Your task to perform on an android device: delete location history Image 0: 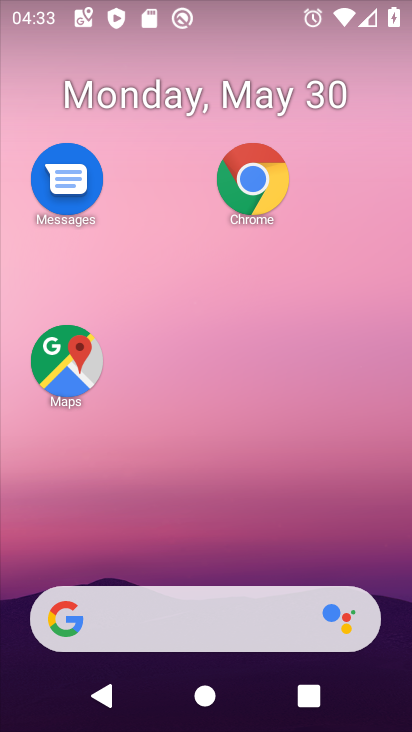
Step 0: drag from (225, 540) to (227, 130)
Your task to perform on an android device: delete location history Image 1: 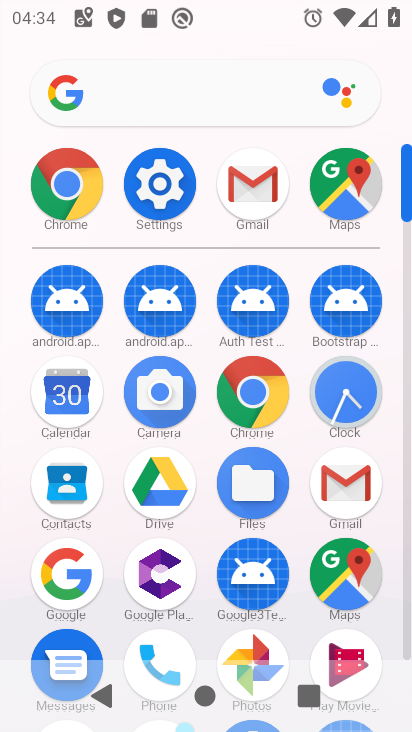
Step 1: click (152, 189)
Your task to perform on an android device: delete location history Image 2: 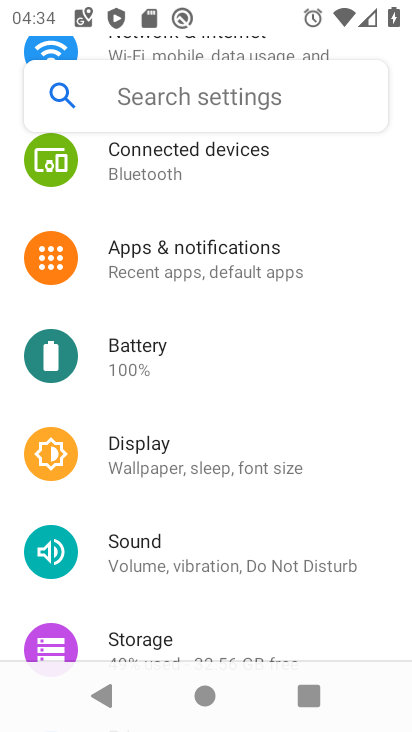
Step 2: drag from (158, 590) to (188, 337)
Your task to perform on an android device: delete location history Image 3: 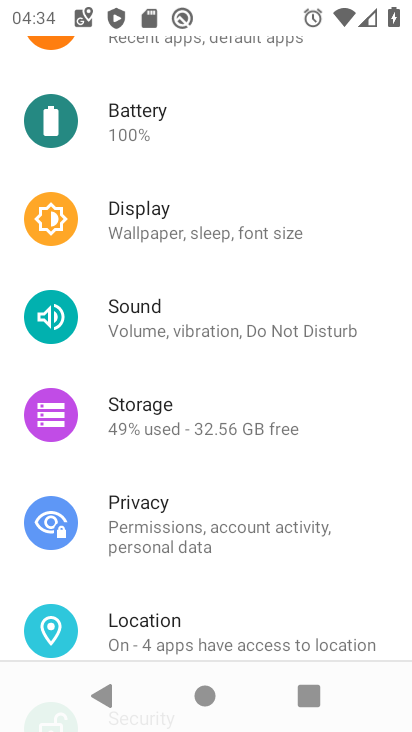
Step 3: click (141, 630)
Your task to perform on an android device: delete location history Image 4: 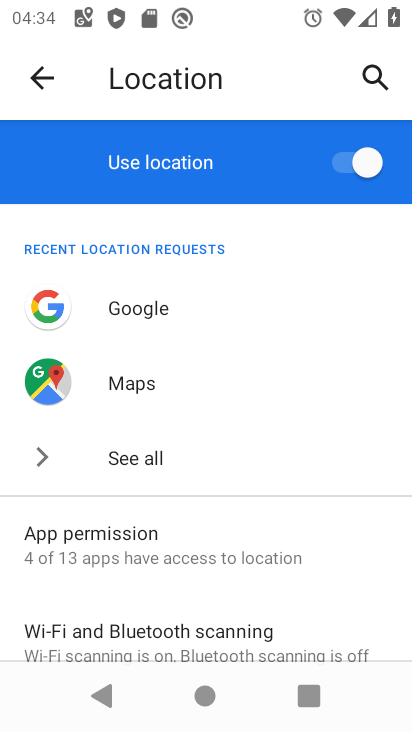
Step 4: click (115, 552)
Your task to perform on an android device: delete location history Image 5: 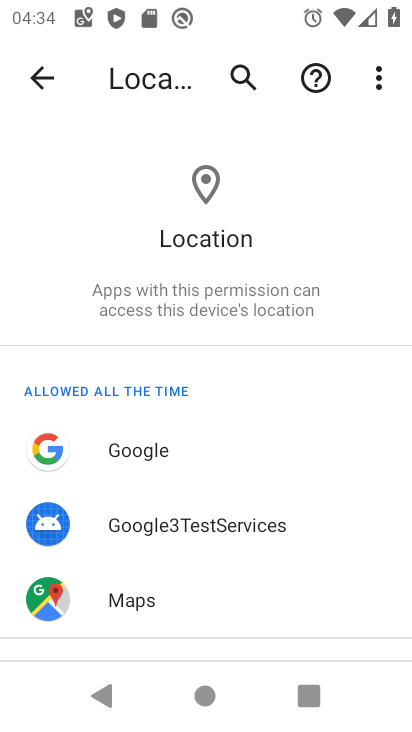
Step 5: click (47, 77)
Your task to perform on an android device: delete location history Image 6: 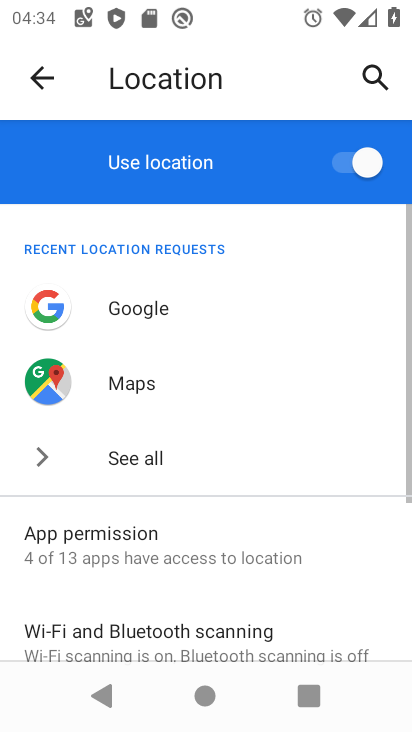
Step 6: drag from (168, 595) to (224, 157)
Your task to perform on an android device: delete location history Image 7: 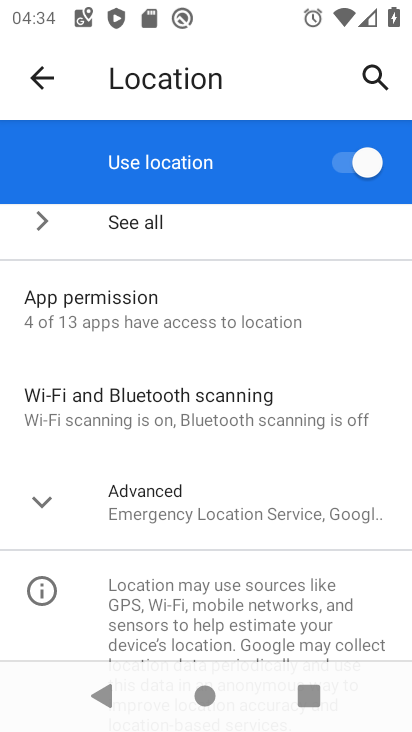
Step 7: click (144, 496)
Your task to perform on an android device: delete location history Image 8: 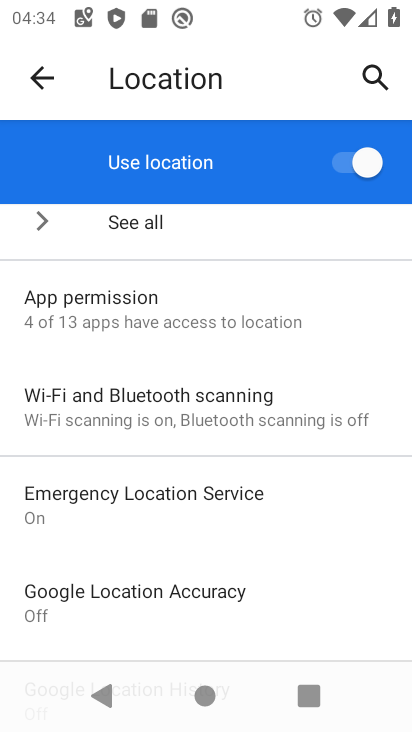
Step 8: drag from (179, 593) to (222, 331)
Your task to perform on an android device: delete location history Image 9: 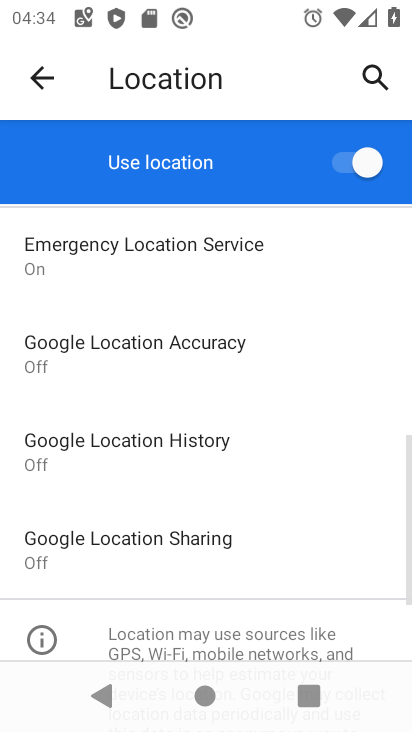
Step 9: drag from (206, 589) to (242, 322)
Your task to perform on an android device: delete location history Image 10: 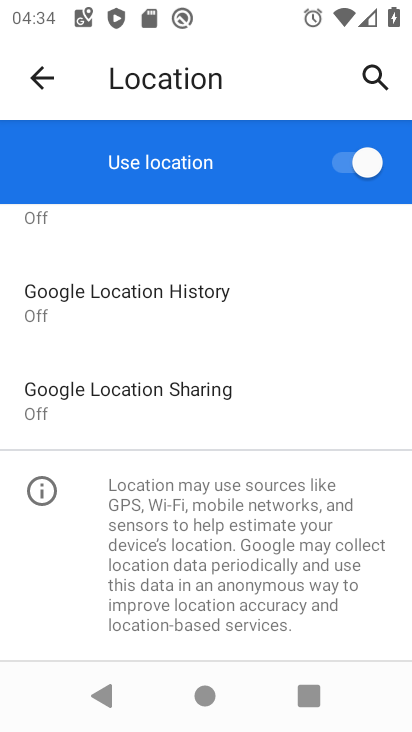
Step 10: press home button
Your task to perform on an android device: delete location history Image 11: 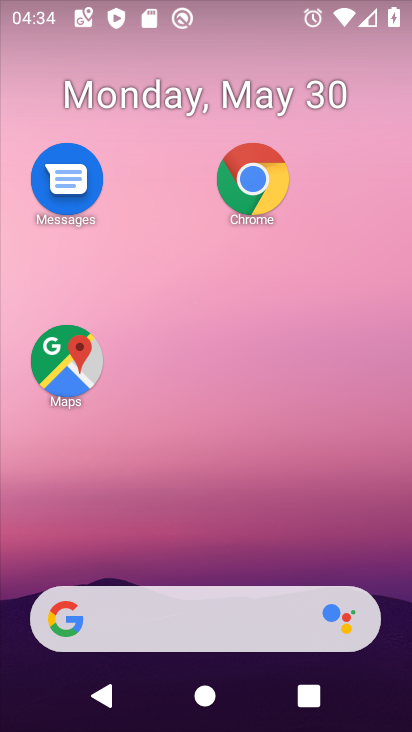
Step 11: drag from (216, 551) to (207, 238)
Your task to perform on an android device: delete location history Image 12: 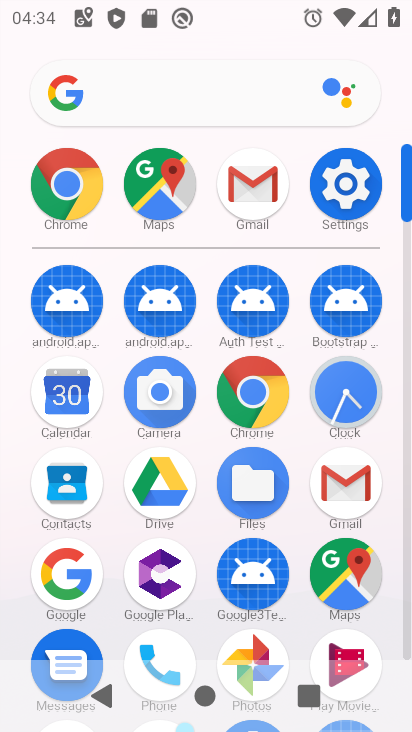
Step 12: click (353, 168)
Your task to perform on an android device: delete location history Image 13: 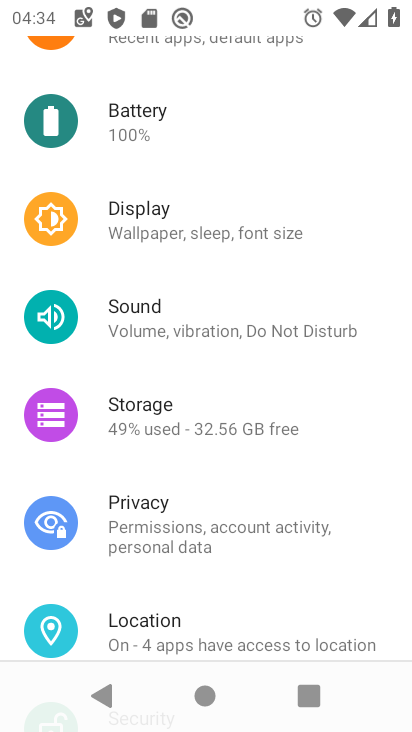
Step 13: click (128, 629)
Your task to perform on an android device: delete location history Image 14: 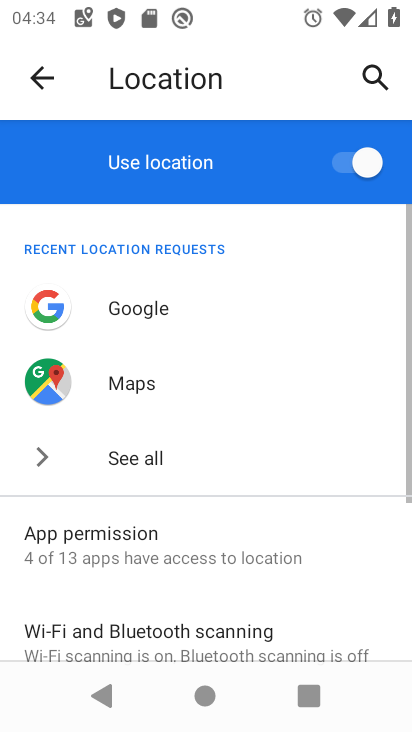
Step 14: press home button
Your task to perform on an android device: delete location history Image 15: 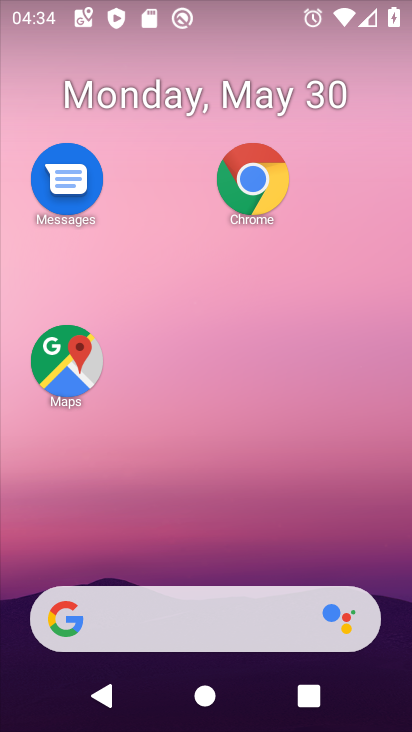
Step 15: drag from (223, 542) to (223, 173)
Your task to perform on an android device: delete location history Image 16: 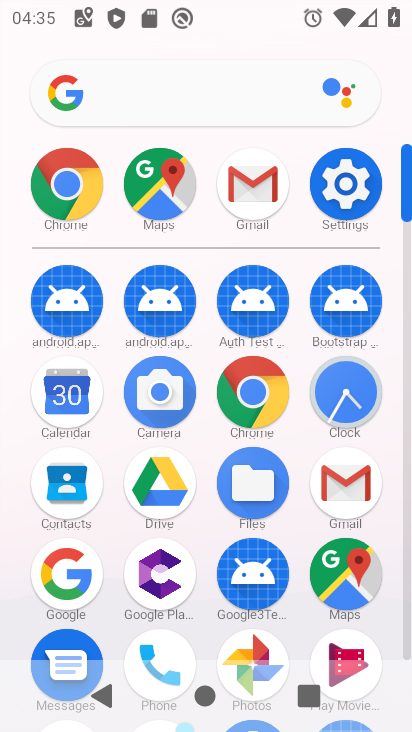
Step 16: click (341, 571)
Your task to perform on an android device: delete location history Image 17: 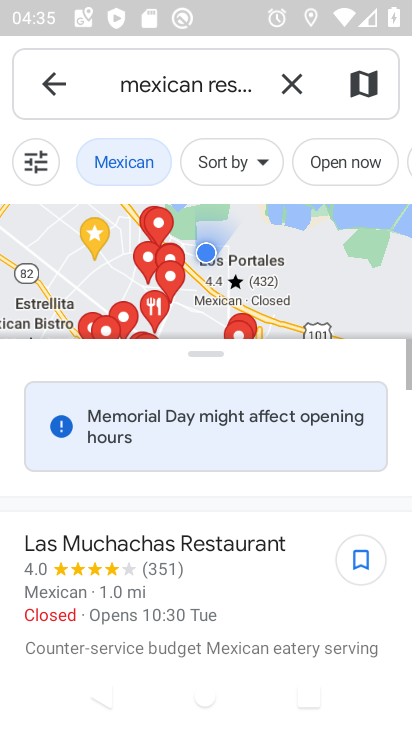
Step 17: click (31, 85)
Your task to perform on an android device: delete location history Image 18: 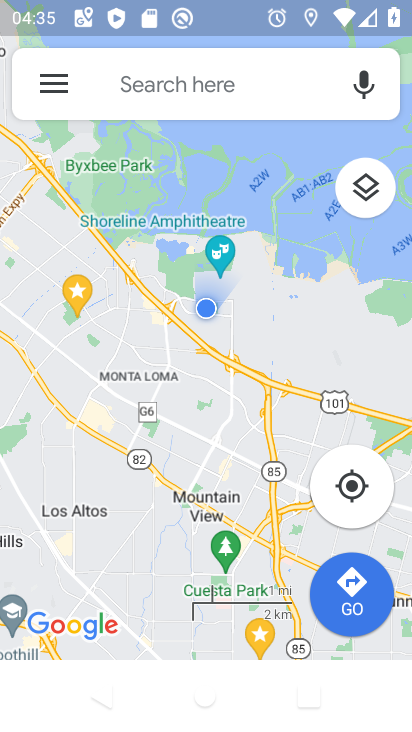
Step 18: click (53, 89)
Your task to perform on an android device: delete location history Image 19: 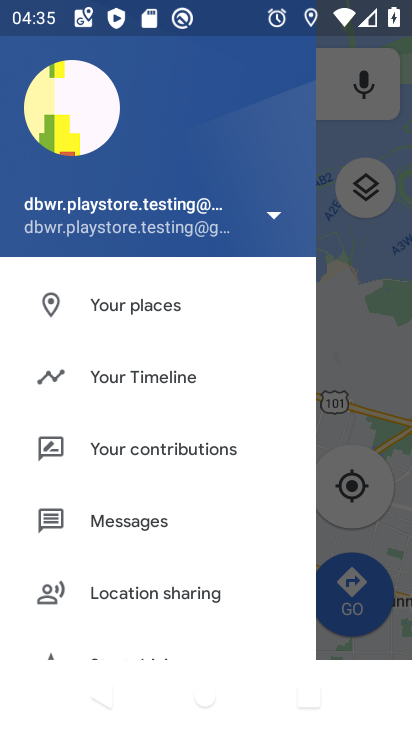
Step 19: click (136, 388)
Your task to perform on an android device: delete location history Image 20: 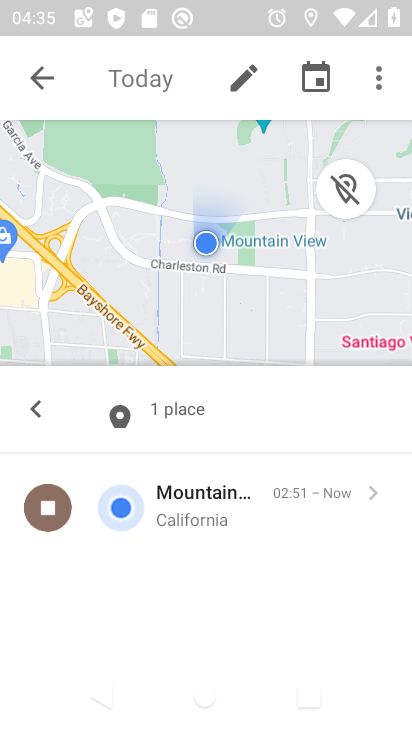
Step 20: click (380, 77)
Your task to perform on an android device: delete location history Image 21: 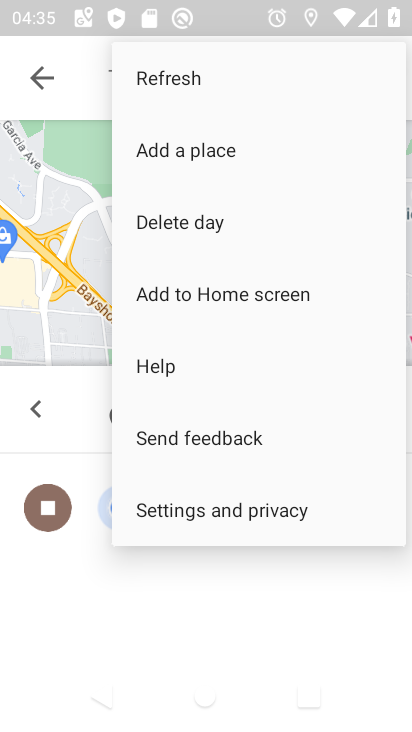
Step 21: click (227, 518)
Your task to perform on an android device: delete location history Image 22: 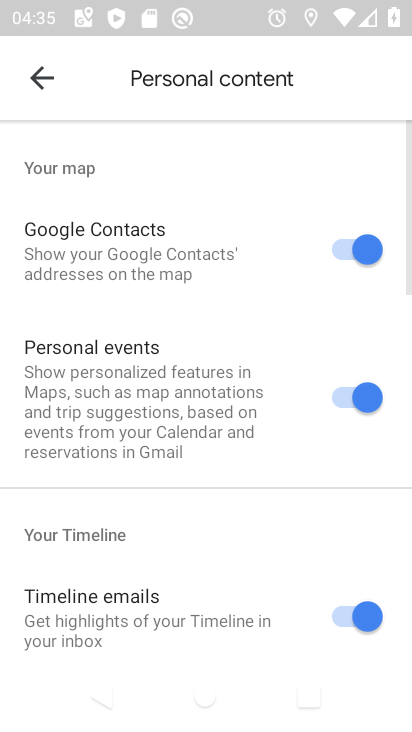
Step 22: drag from (166, 630) to (174, 206)
Your task to perform on an android device: delete location history Image 23: 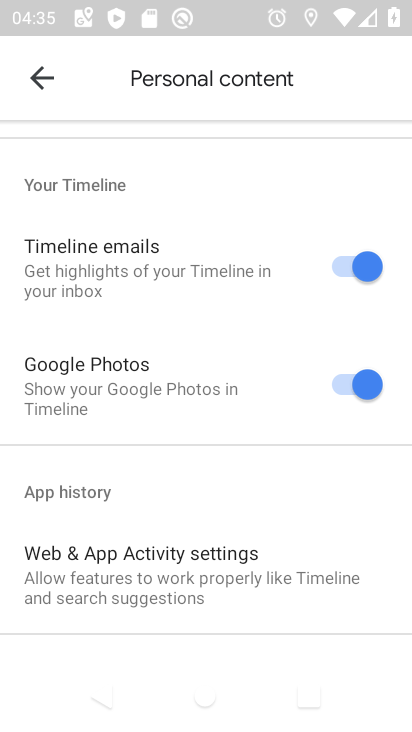
Step 23: drag from (223, 542) to (231, 153)
Your task to perform on an android device: delete location history Image 24: 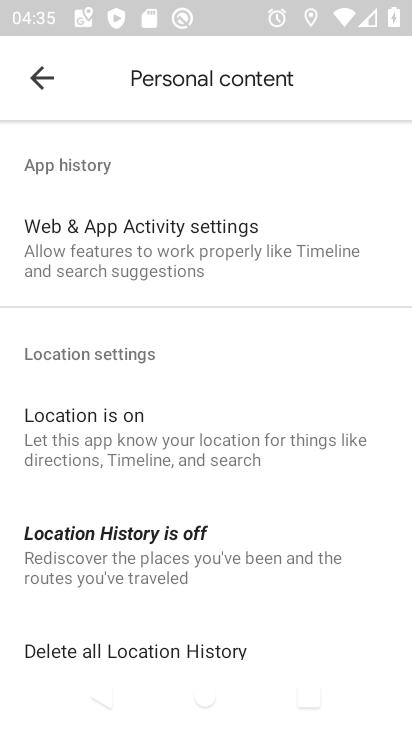
Step 24: drag from (160, 600) to (204, 189)
Your task to perform on an android device: delete location history Image 25: 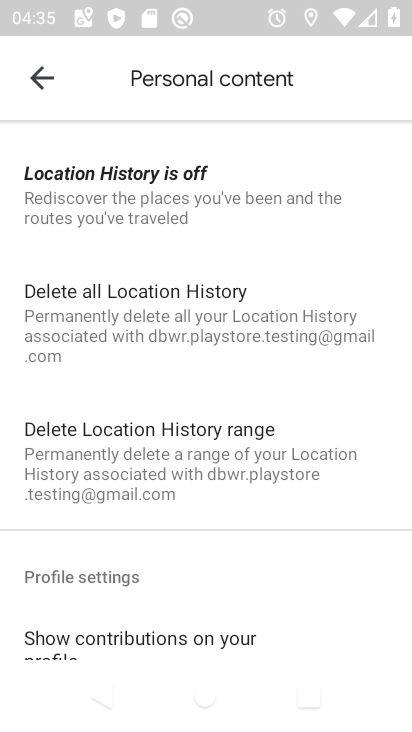
Step 25: click (213, 308)
Your task to perform on an android device: delete location history Image 26: 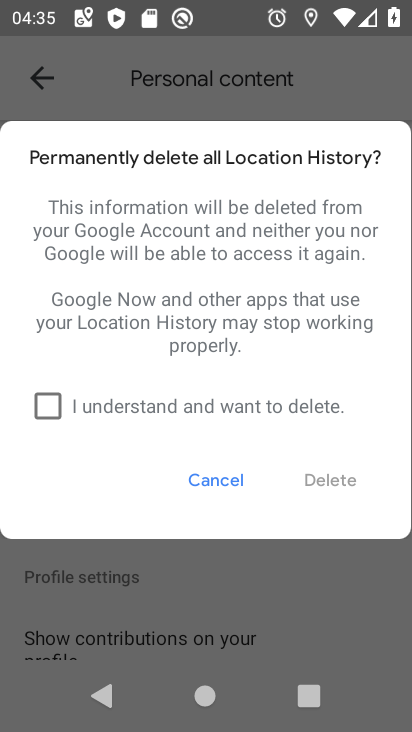
Step 26: click (46, 413)
Your task to perform on an android device: delete location history Image 27: 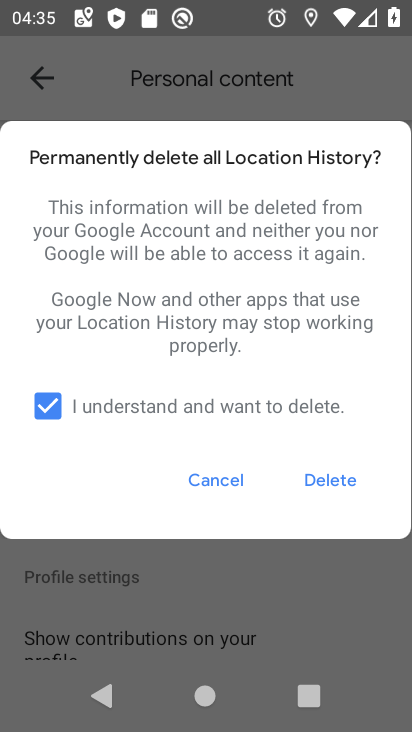
Step 27: click (340, 482)
Your task to perform on an android device: delete location history Image 28: 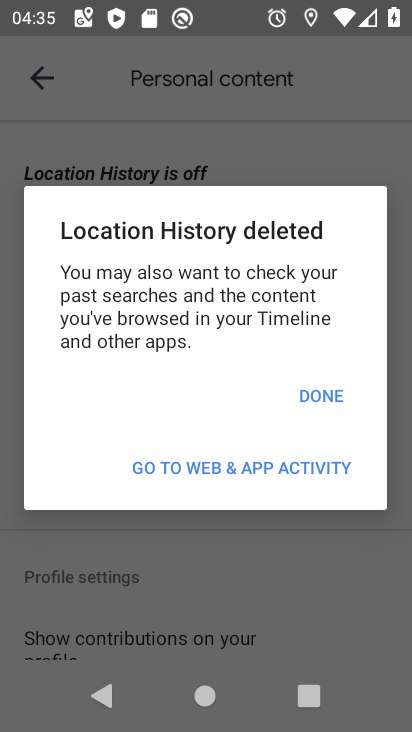
Step 28: click (303, 395)
Your task to perform on an android device: delete location history Image 29: 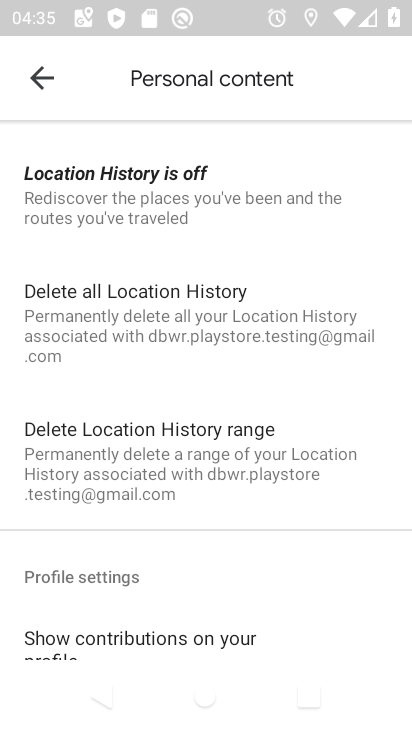
Step 29: task complete